Your task to perform on an android device: Google the capital of the United States Image 0: 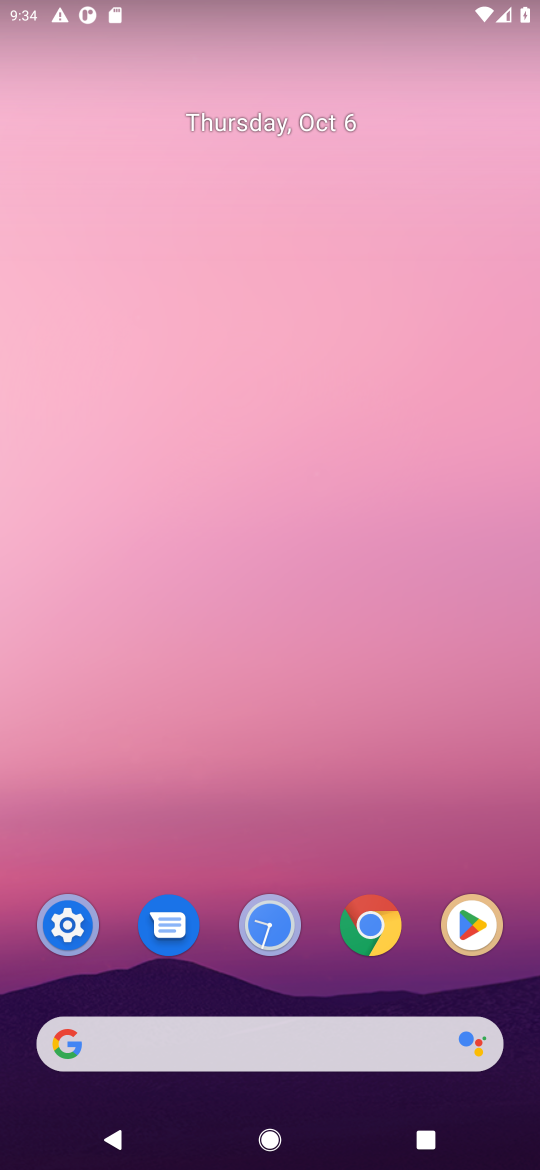
Step 0: click (346, 927)
Your task to perform on an android device: Google the capital of the United States Image 1: 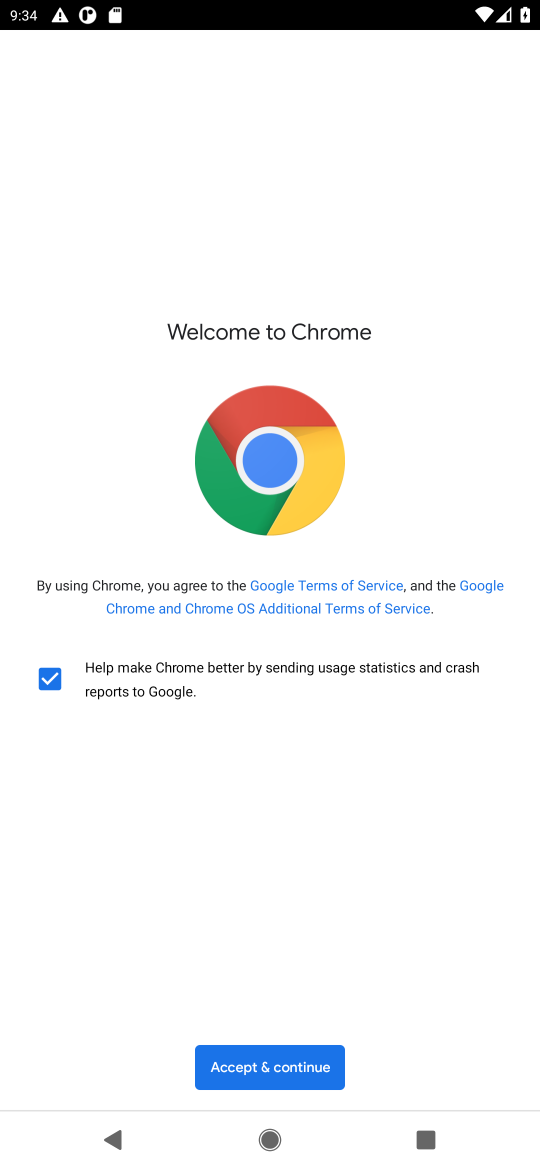
Step 1: click (305, 1051)
Your task to perform on an android device: Google the capital of the United States Image 2: 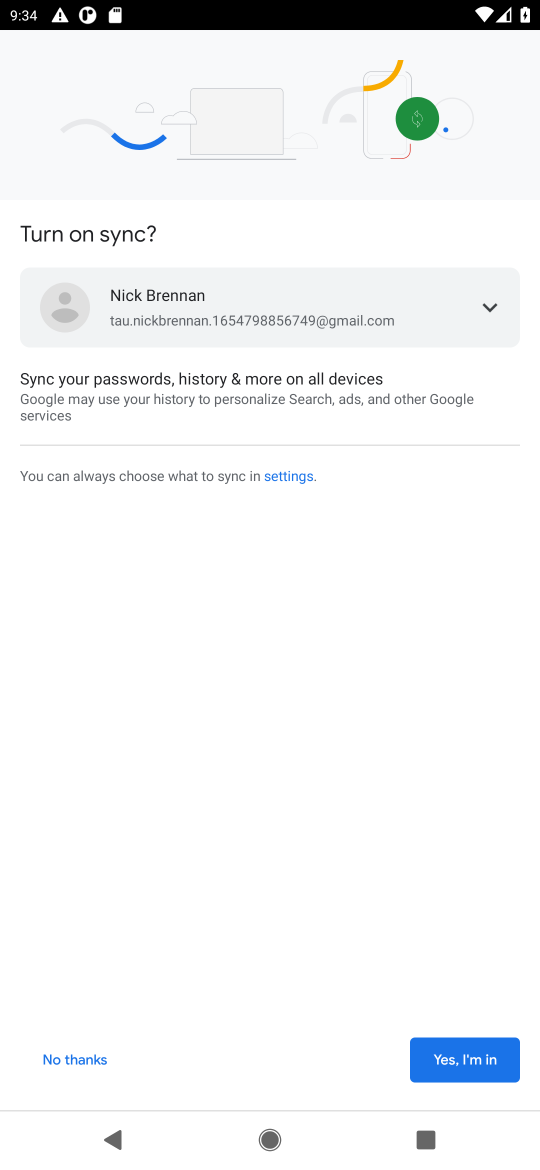
Step 2: click (460, 1072)
Your task to perform on an android device: Google the capital of the United States Image 3: 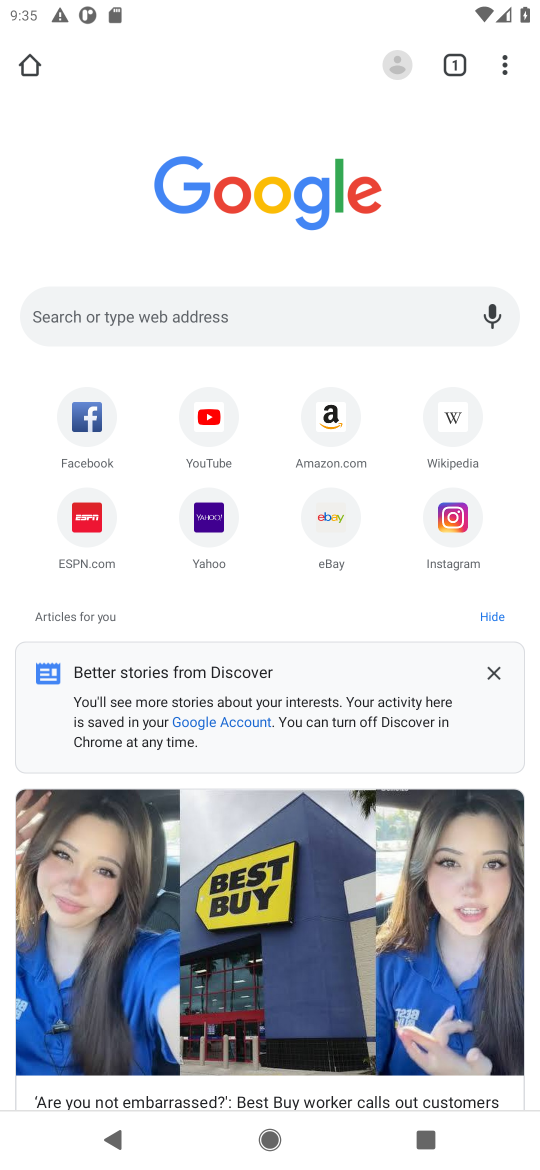
Step 3: click (236, 313)
Your task to perform on an android device: Google the capital of the United States Image 4: 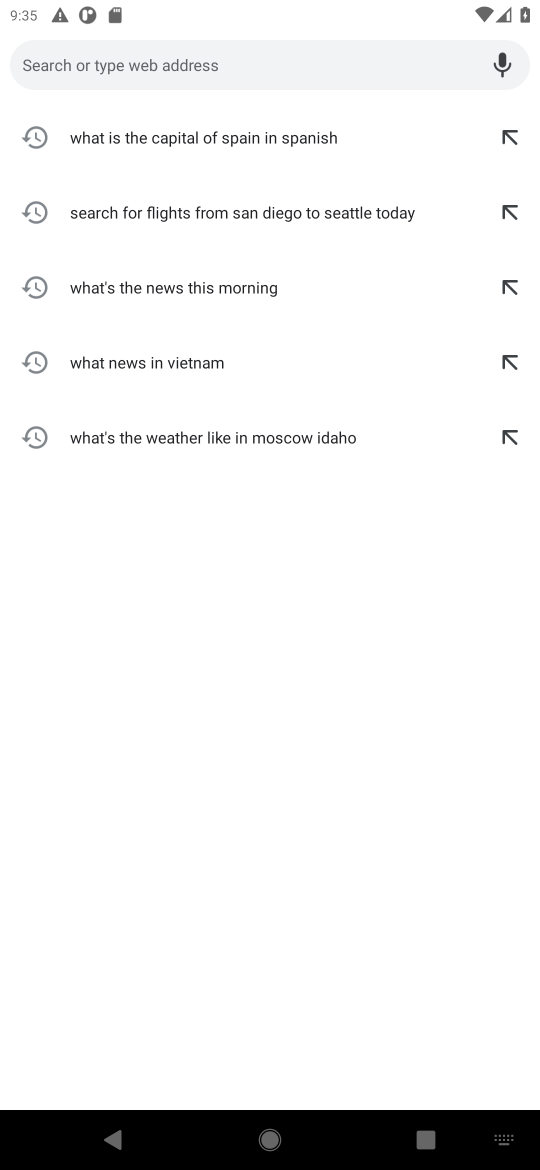
Step 4: type "capital of the United States"
Your task to perform on an android device: Google the capital of the United States Image 5: 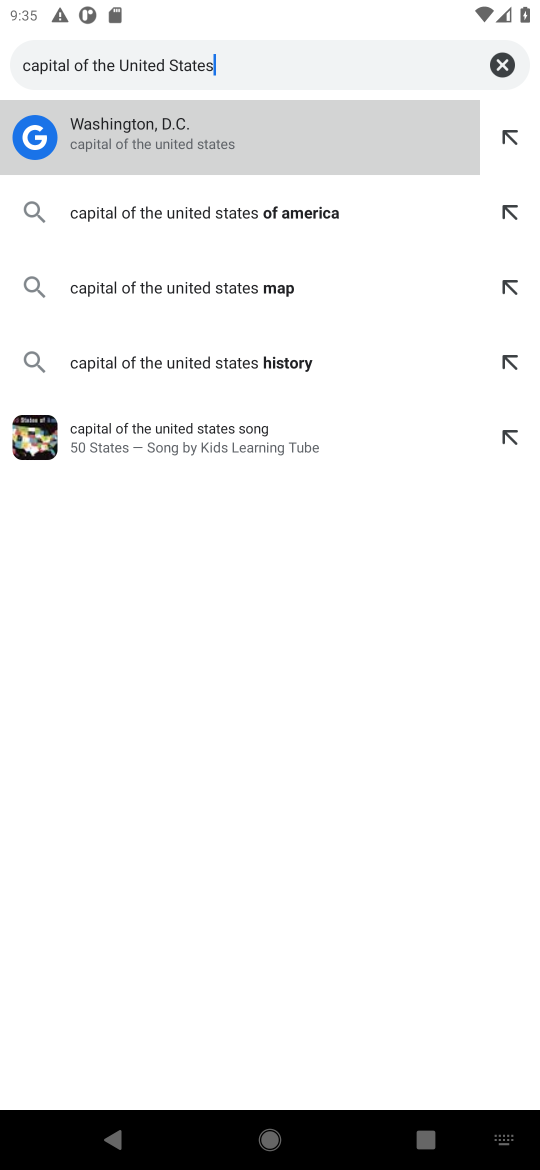
Step 5: click (132, 205)
Your task to perform on an android device: Google the capital of the United States Image 6: 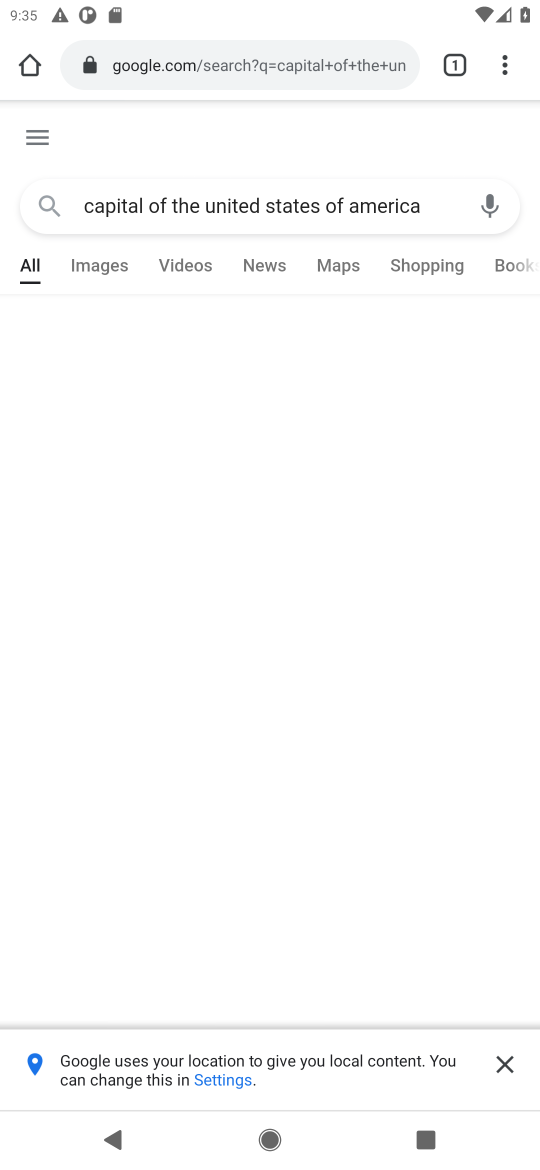
Step 6: click (132, 212)
Your task to perform on an android device: Google the capital of the United States Image 7: 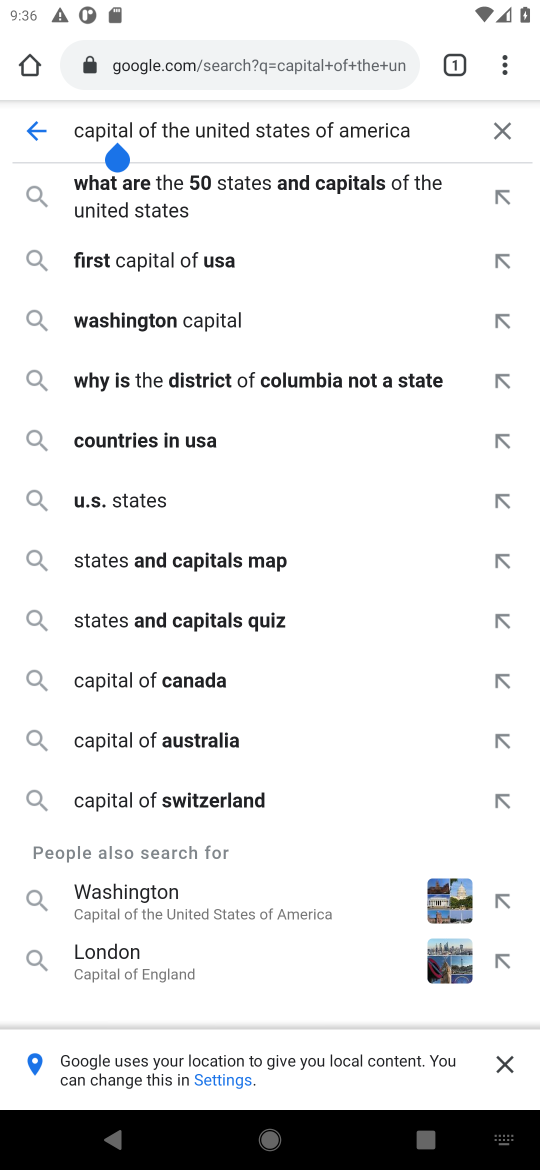
Step 7: click (294, 136)
Your task to perform on an android device: Google the capital of the United States Image 8: 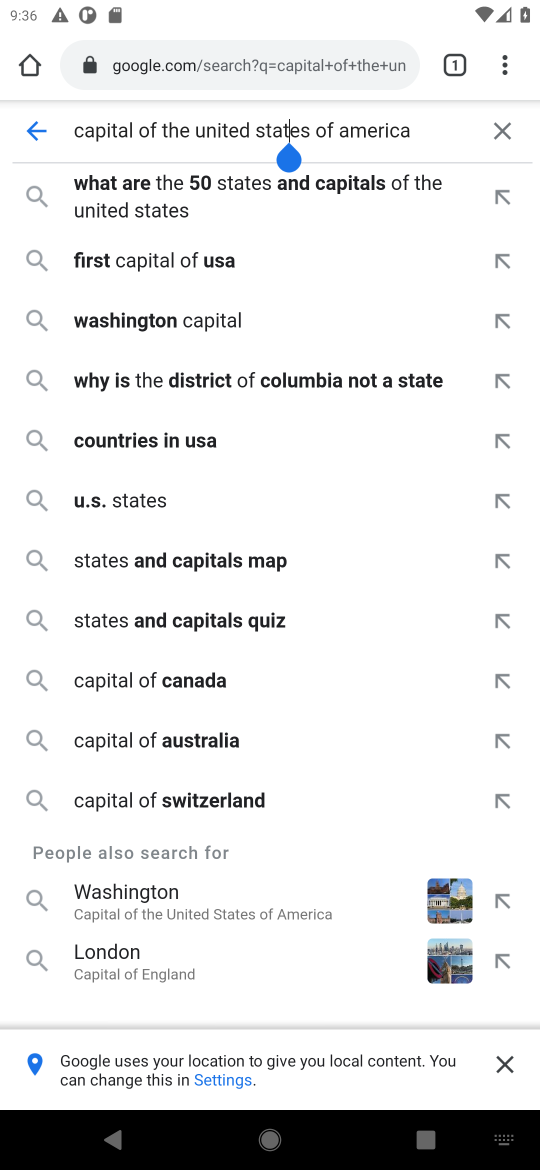
Step 8: task complete